Your task to perform on an android device: Open network settings Image 0: 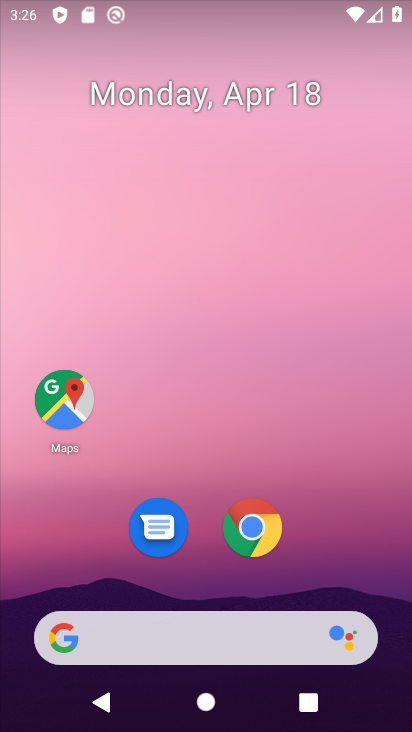
Step 0: drag from (181, 644) to (185, 135)
Your task to perform on an android device: Open network settings Image 1: 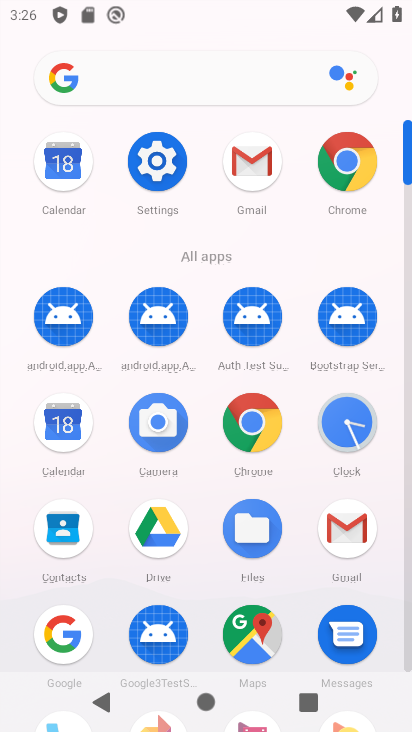
Step 1: click (156, 164)
Your task to perform on an android device: Open network settings Image 2: 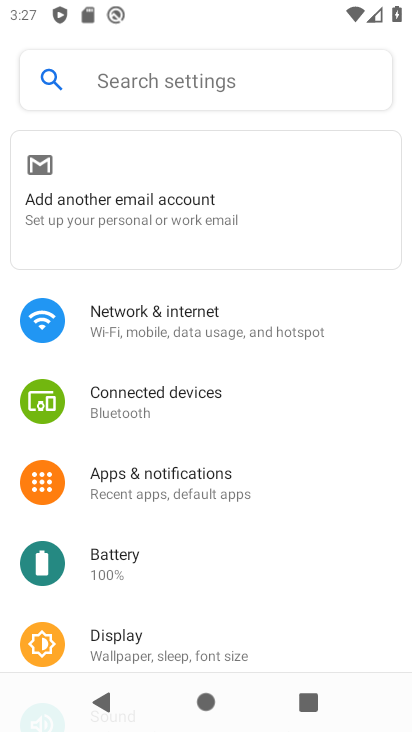
Step 2: click (140, 332)
Your task to perform on an android device: Open network settings Image 3: 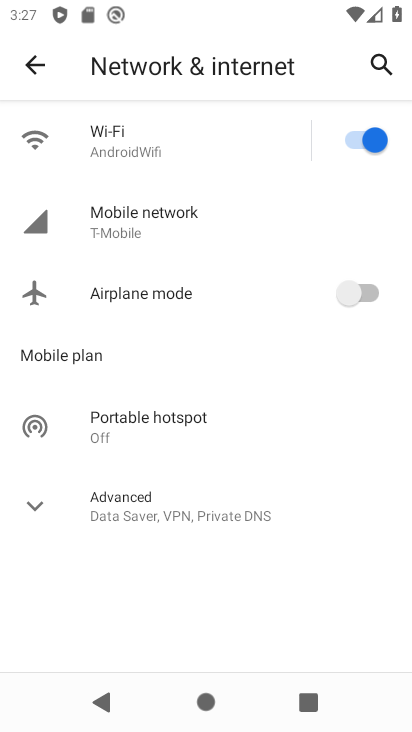
Step 3: task complete